Your task to perform on an android device: turn on bluetooth scan Image 0: 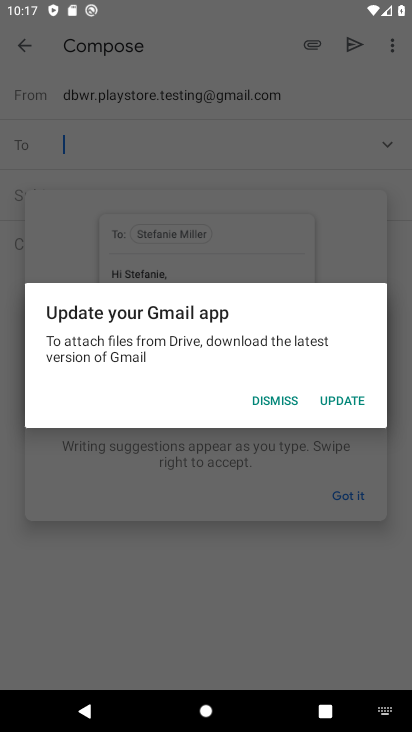
Step 0: press home button
Your task to perform on an android device: turn on bluetooth scan Image 1: 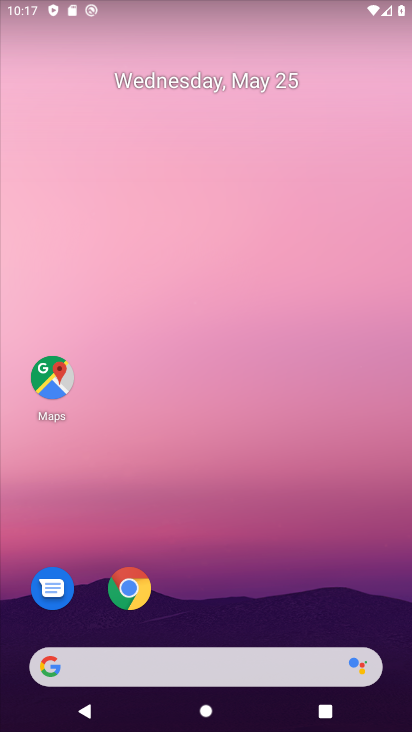
Step 1: drag from (247, 546) to (245, 105)
Your task to perform on an android device: turn on bluetooth scan Image 2: 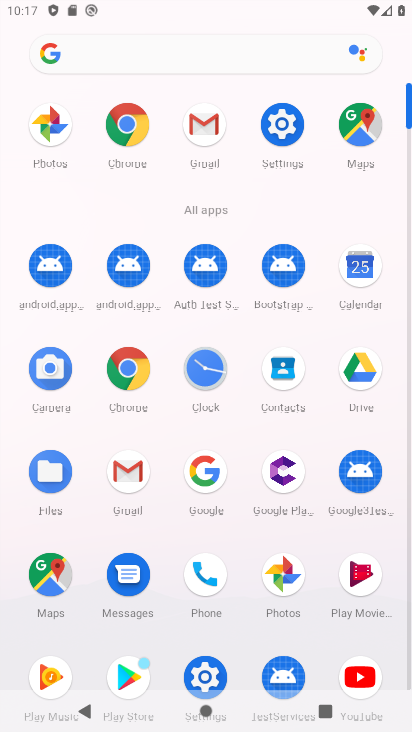
Step 2: click (300, 130)
Your task to perform on an android device: turn on bluetooth scan Image 3: 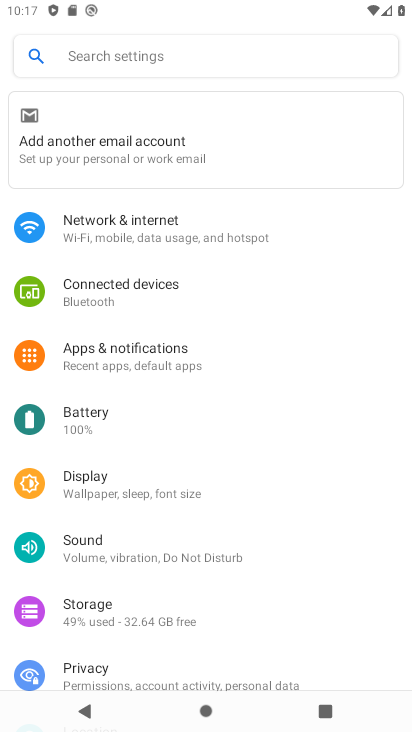
Step 3: drag from (235, 471) to (286, 114)
Your task to perform on an android device: turn on bluetooth scan Image 4: 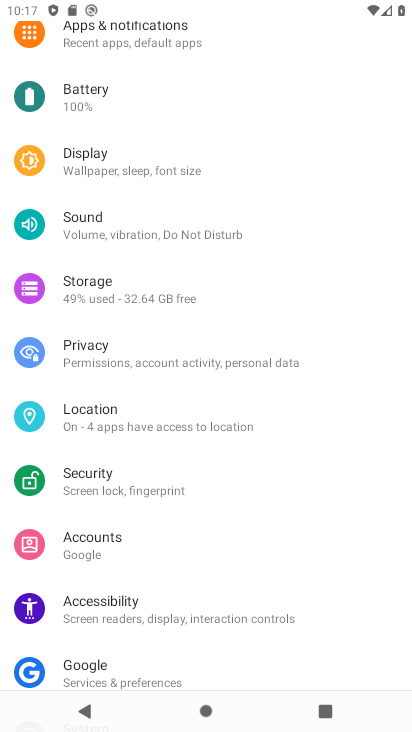
Step 4: click (174, 429)
Your task to perform on an android device: turn on bluetooth scan Image 5: 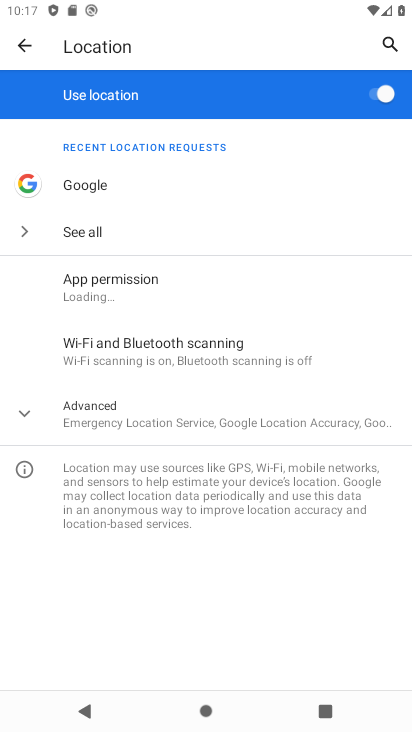
Step 5: click (176, 425)
Your task to perform on an android device: turn on bluetooth scan Image 6: 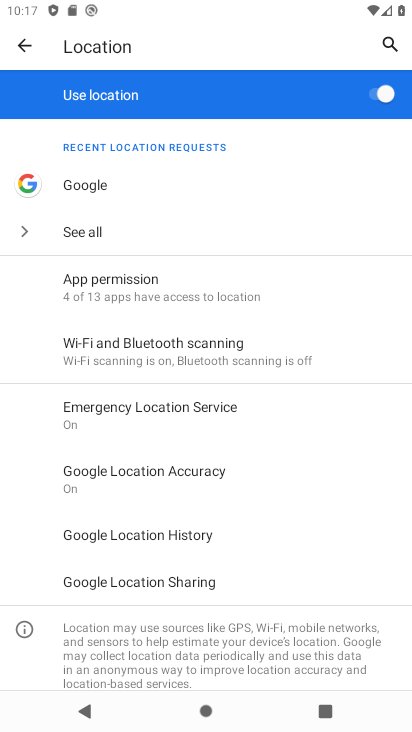
Step 6: click (238, 346)
Your task to perform on an android device: turn on bluetooth scan Image 7: 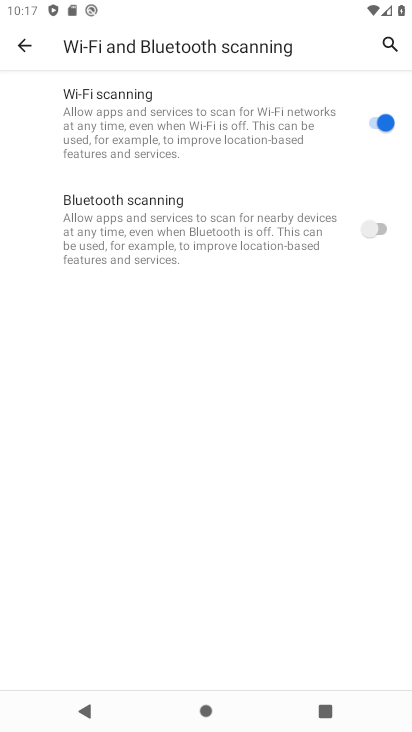
Step 7: click (360, 225)
Your task to perform on an android device: turn on bluetooth scan Image 8: 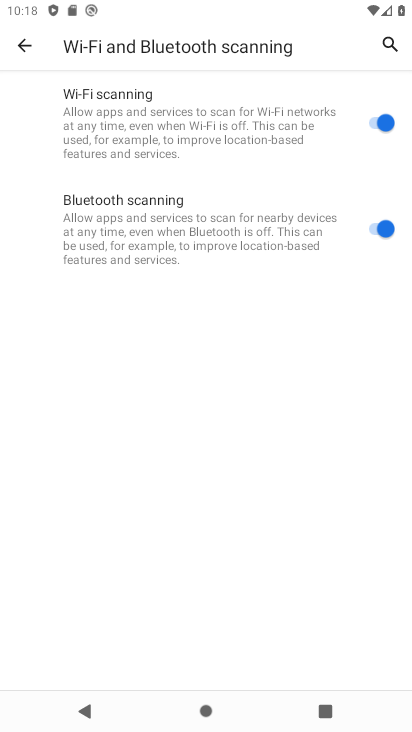
Step 8: task complete